Your task to perform on an android device: Go to Amazon Image 0: 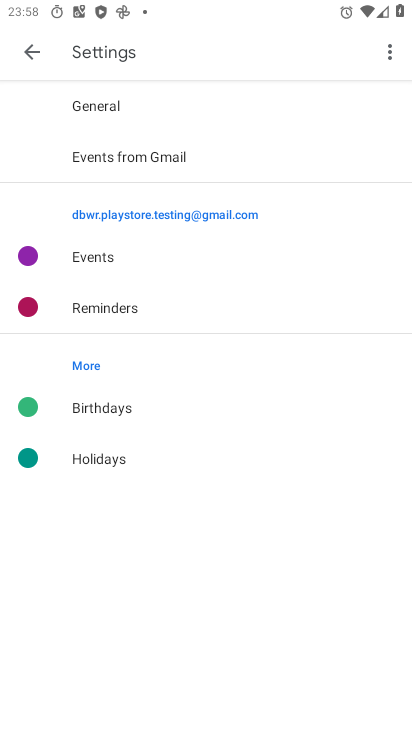
Step 0: press home button
Your task to perform on an android device: Go to Amazon Image 1: 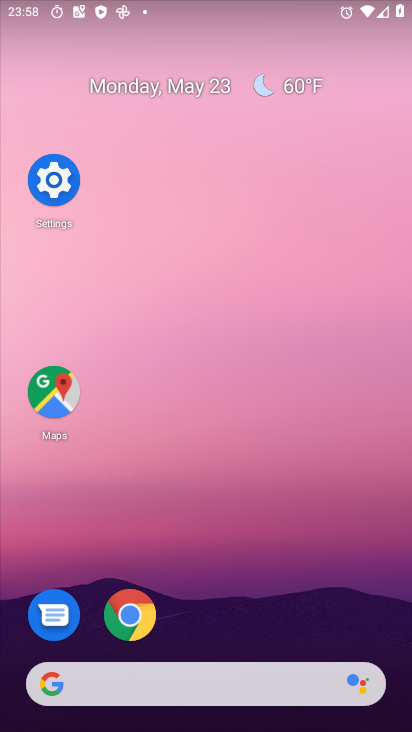
Step 1: click (136, 608)
Your task to perform on an android device: Go to Amazon Image 2: 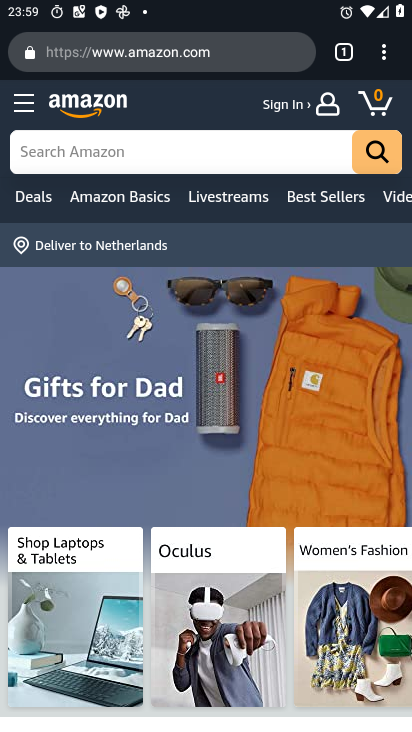
Step 2: task complete